Your task to perform on an android device: turn notification dots on Image 0: 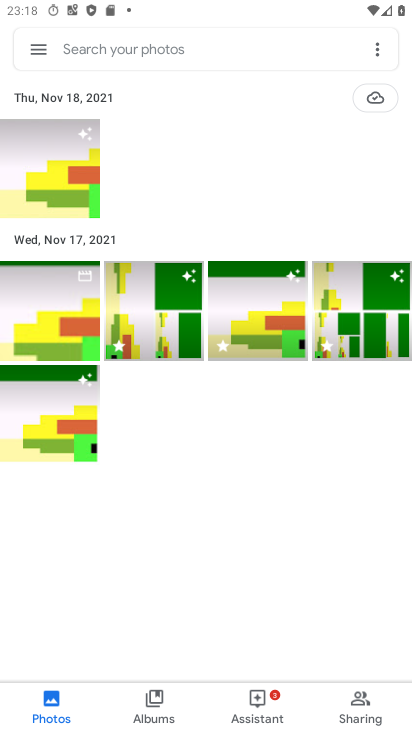
Step 0: press home button
Your task to perform on an android device: turn notification dots on Image 1: 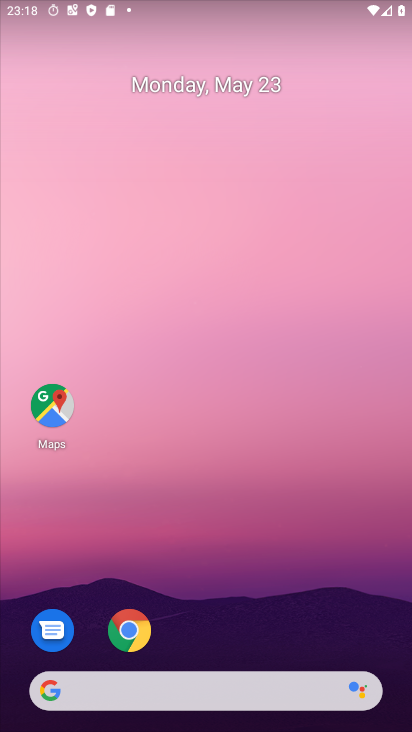
Step 1: drag from (235, 661) to (244, 10)
Your task to perform on an android device: turn notification dots on Image 2: 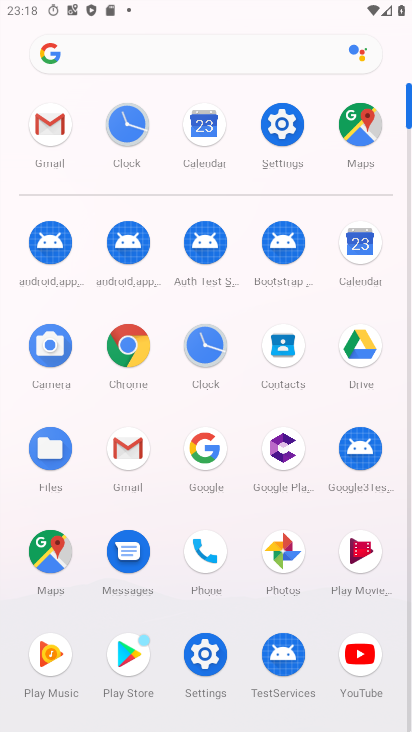
Step 2: click (287, 125)
Your task to perform on an android device: turn notification dots on Image 3: 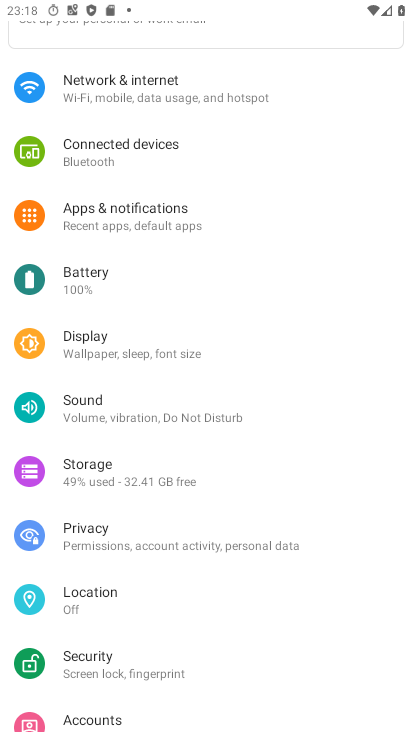
Step 3: click (117, 211)
Your task to perform on an android device: turn notification dots on Image 4: 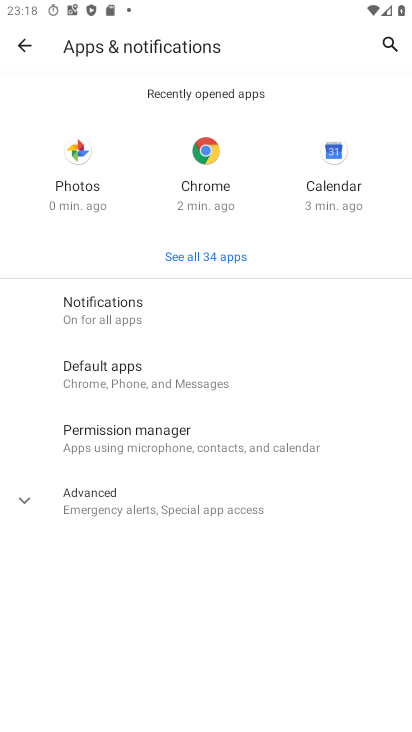
Step 4: click (102, 307)
Your task to perform on an android device: turn notification dots on Image 5: 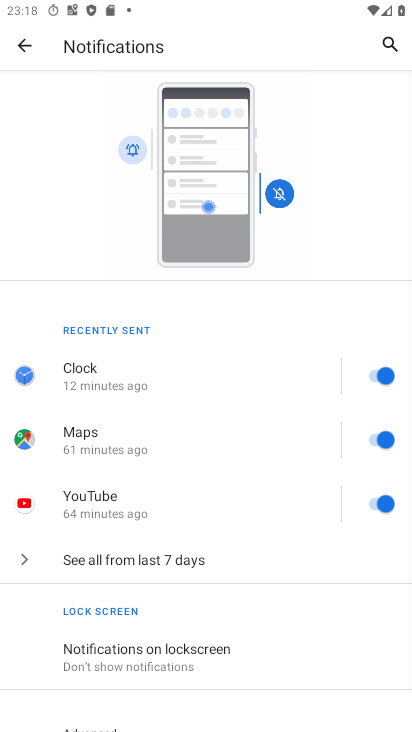
Step 5: drag from (214, 523) to (221, 241)
Your task to perform on an android device: turn notification dots on Image 6: 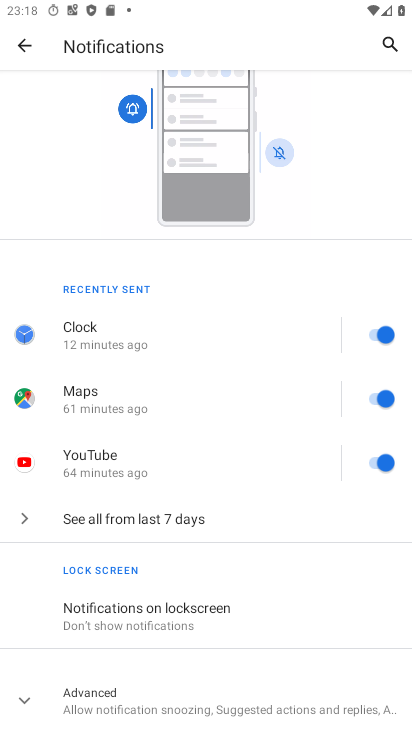
Step 6: click (24, 702)
Your task to perform on an android device: turn notification dots on Image 7: 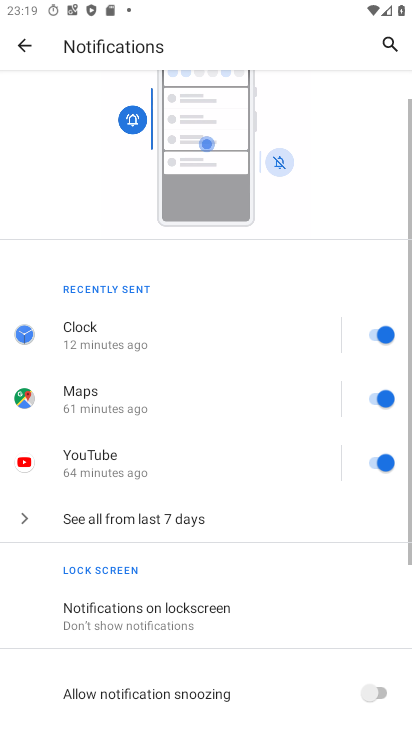
Step 7: task complete